Your task to perform on an android device: clear all cookies in the chrome app Image 0: 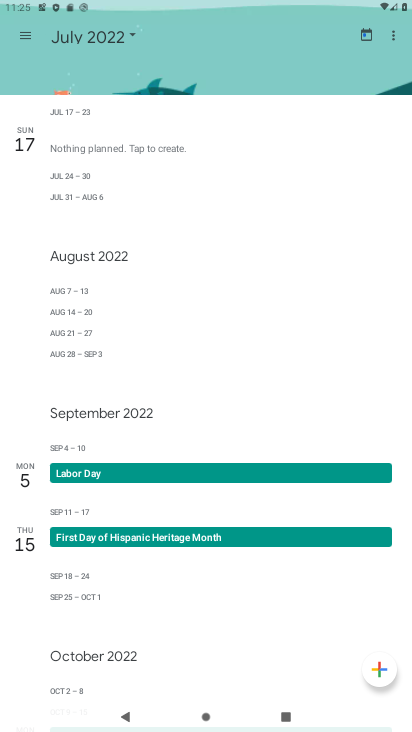
Step 0: press home button
Your task to perform on an android device: clear all cookies in the chrome app Image 1: 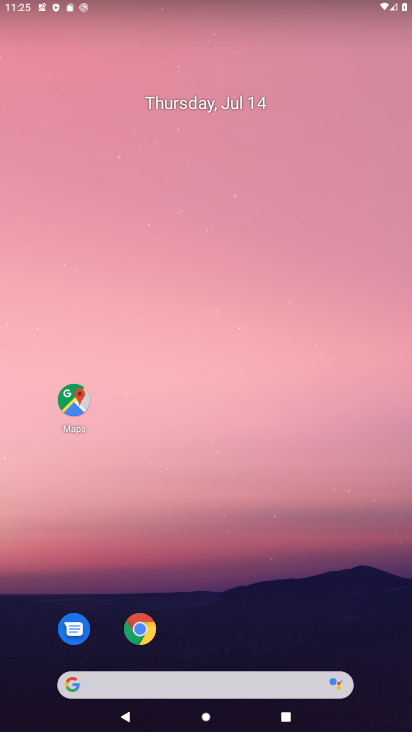
Step 1: click (136, 627)
Your task to perform on an android device: clear all cookies in the chrome app Image 2: 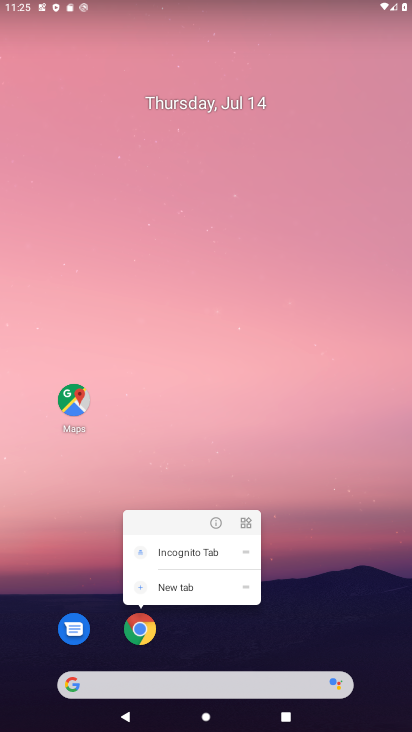
Step 2: click (138, 619)
Your task to perform on an android device: clear all cookies in the chrome app Image 3: 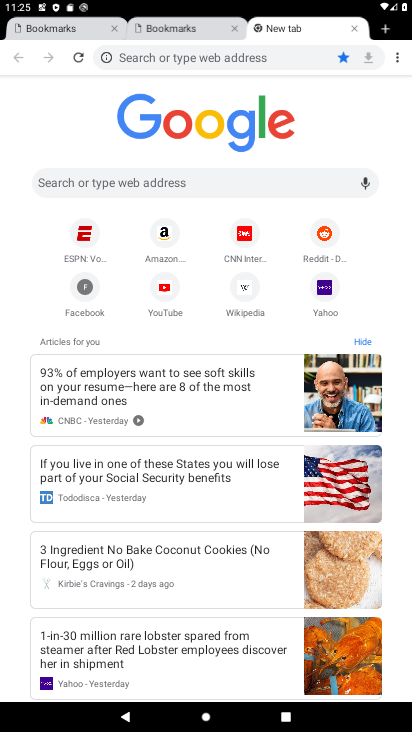
Step 3: drag from (393, 56) to (284, 259)
Your task to perform on an android device: clear all cookies in the chrome app Image 4: 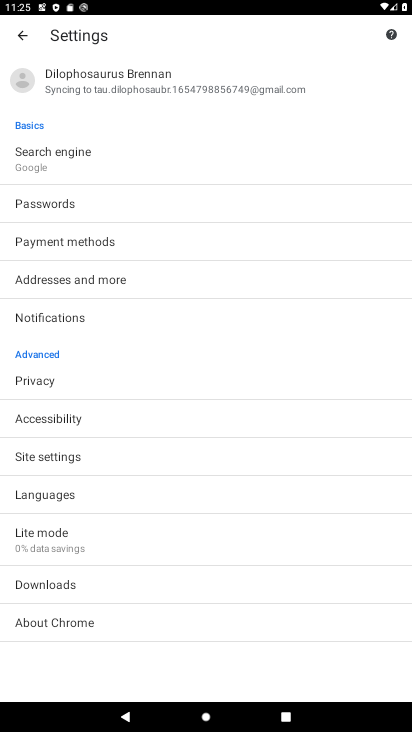
Step 4: click (41, 381)
Your task to perform on an android device: clear all cookies in the chrome app Image 5: 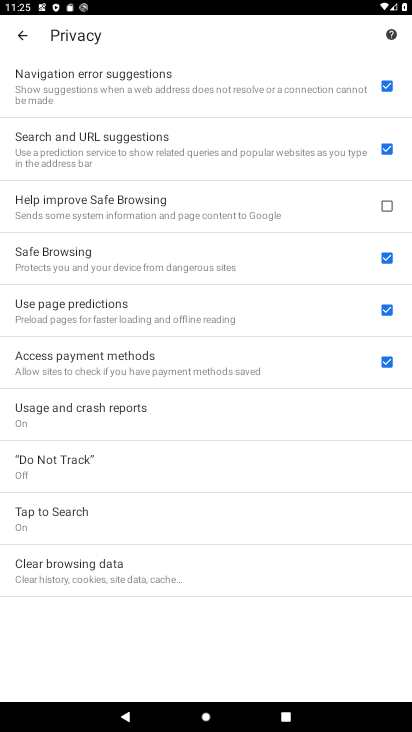
Step 5: click (119, 575)
Your task to perform on an android device: clear all cookies in the chrome app Image 6: 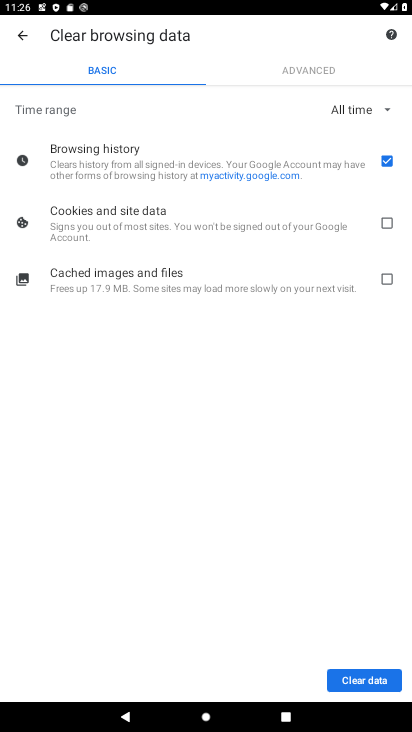
Step 6: click (388, 225)
Your task to perform on an android device: clear all cookies in the chrome app Image 7: 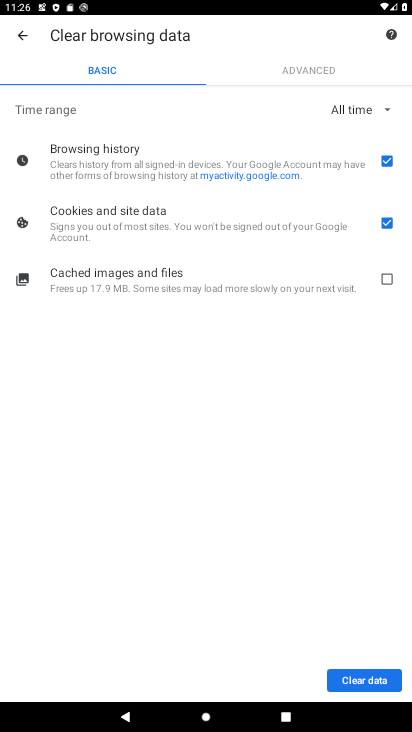
Step 7: click (387, 276)
Your task to perform on an android device: clear all cookies in the chrome app Image 8: 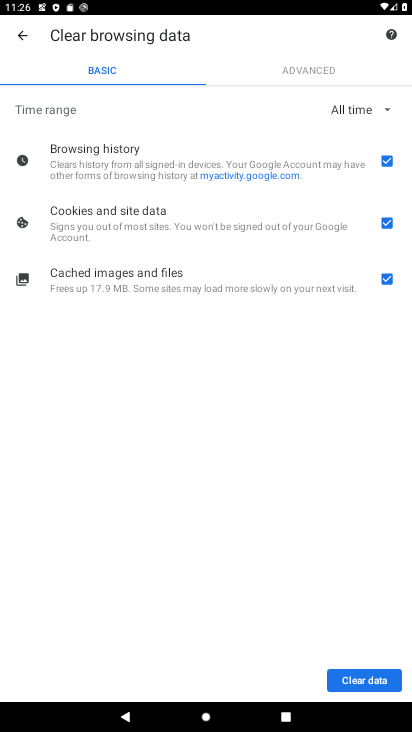
Step 8: click (387, 159)
Your task to perform on an android device: clear all cookies in the chrome app Image 9: 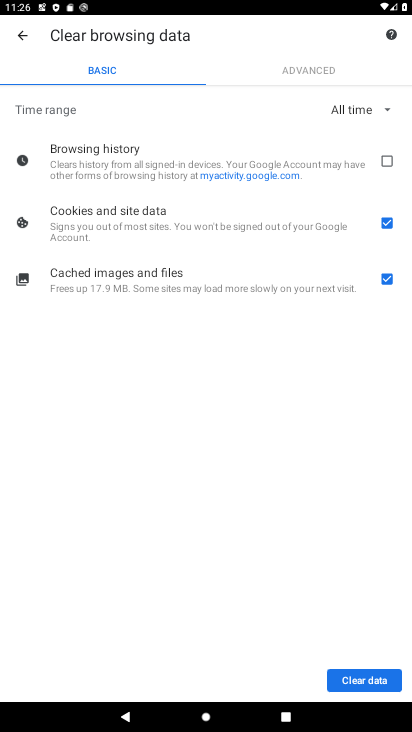
Step 9: click (383, 282)
Your task to perform on an android device: clear all cookies in the chrome app Image 10: 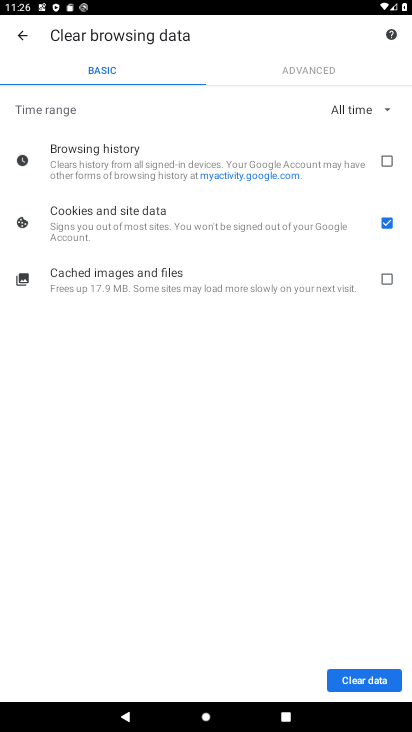
Step 10: click (380, 685)
Your task to perform on an android device: clear all cookies in the chrome app Image 11: 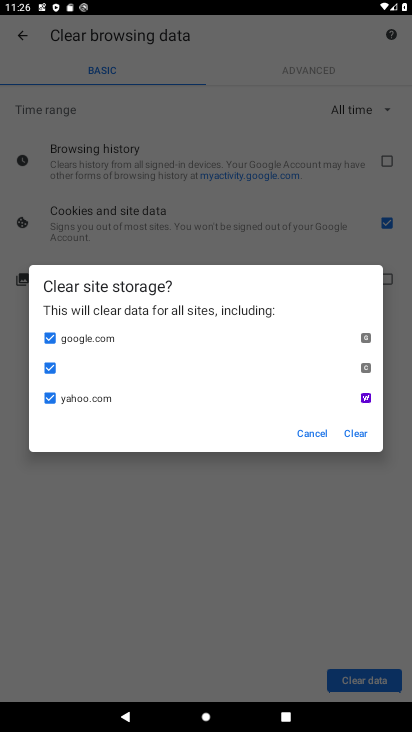
Step 11: click (354, 433)
Your task to perform on an android device: clear all cookies in the chrome app Image 12: 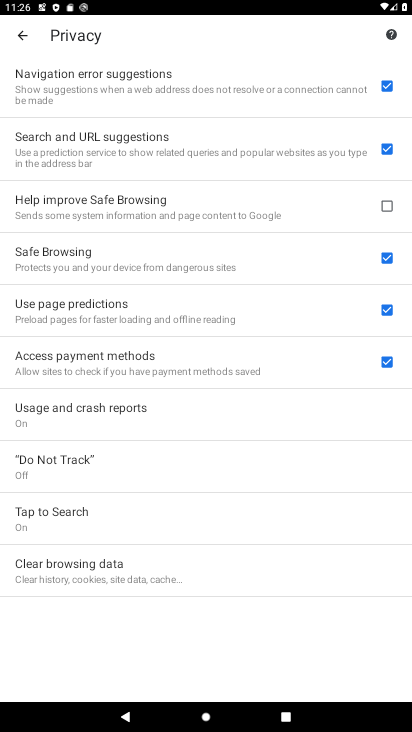
Step 12: task complete